Your task to perform on an android device: Open a new incognito tab in the chrome app Image 0: 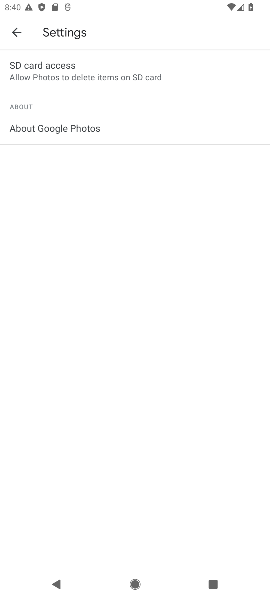
Step 0: press home button
Your task to perform on an android device: Open a new incognito tab in the chrome app Image 1: 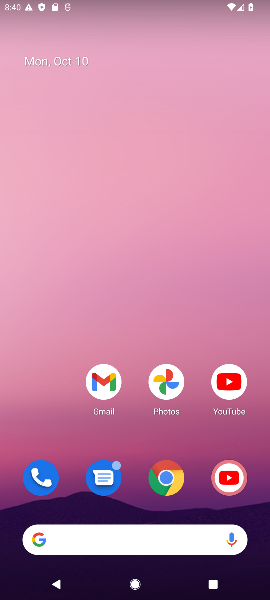
Step 1: click (163, 475)
Your task to perform on an android device: Open a new incognito tab in the chrome app Image 2: 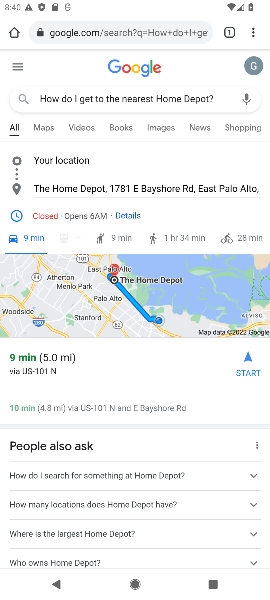
Step 2: click (252, 30)
Your task to perform on an android device: Open a new incognito tab in the chrome app Image 3: 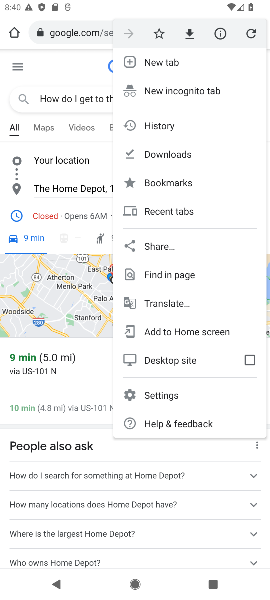
Step 3: click (192, 97)
Your task to perform on an android device: Open a new incognito tab in the chrome app Image 4: 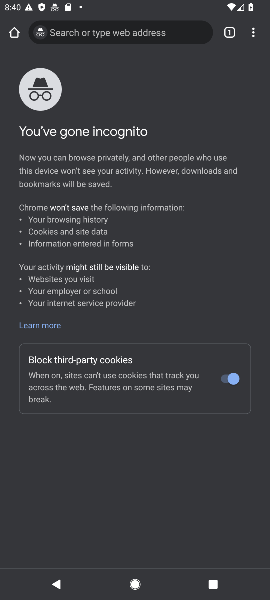
Step 4: task complete